Your task to perform on an android device: make emails show in primary in the gmail app Image 0: 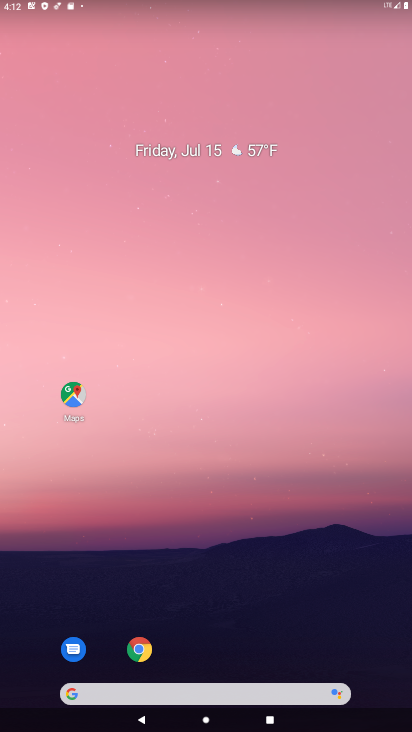
Step 0: drag from (227, 723) to (257, 66)
Your task to perform on an android device: make emails show in primary in the gmail app Image 1: 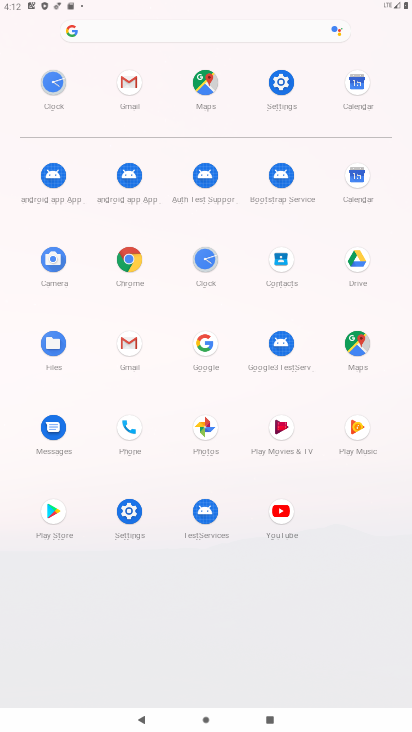
Step 1: click (126, 340)
Your task to perform on an android device: make emails show in primary in the gmail app Image 2: 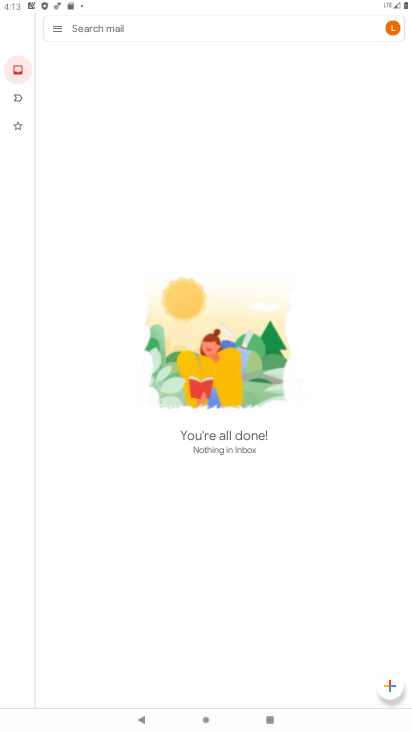
Step 2: click (12, 62)
Your task to perform on an android device: make emails show in primary in the gmail app Image 3: 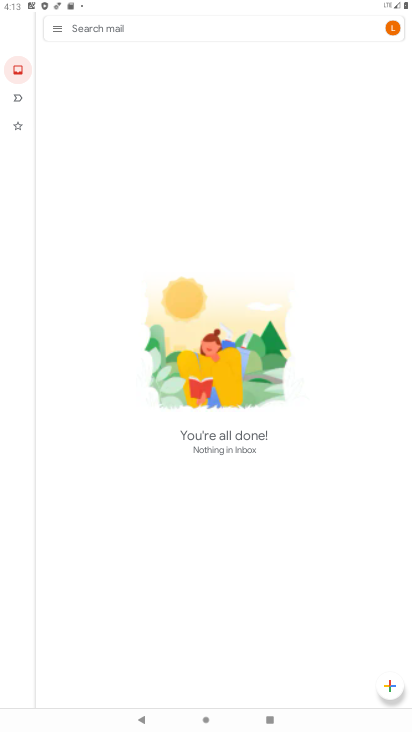
Step 3: click (51, 26)
Your task to perform on an android device: make emails show in primary in the gmail app Image 4: 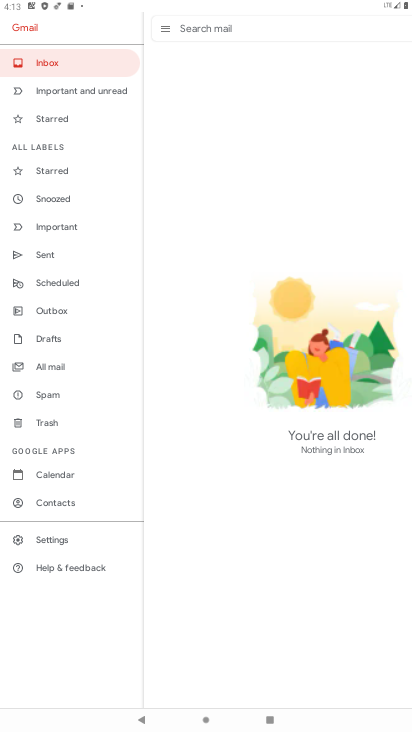
Step 4: click (43, 542)
Your task to perform on an android device: make emails show in primary in the gmail app Image 5: 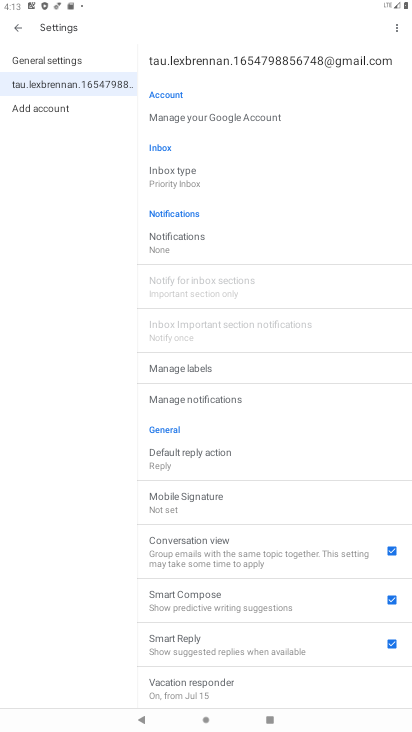
Step 5: click (179, 175)
Your task to perform on an android device: make emails show in primary in the gmail app Image 6: 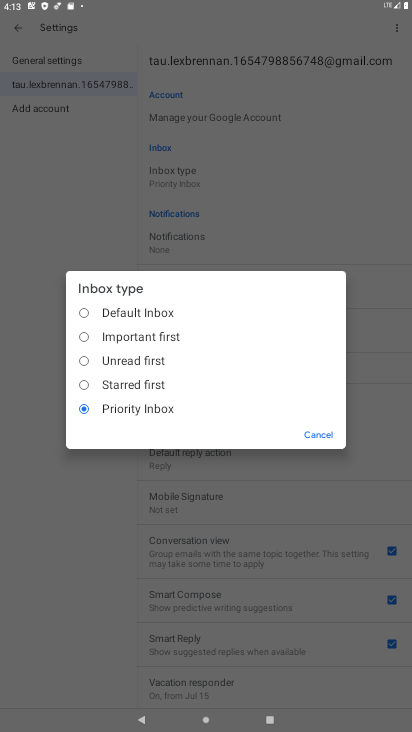
Step 6: click (76, 311)
Your task to perform on an android device: make emails show in primary in the gmail app Image 7: 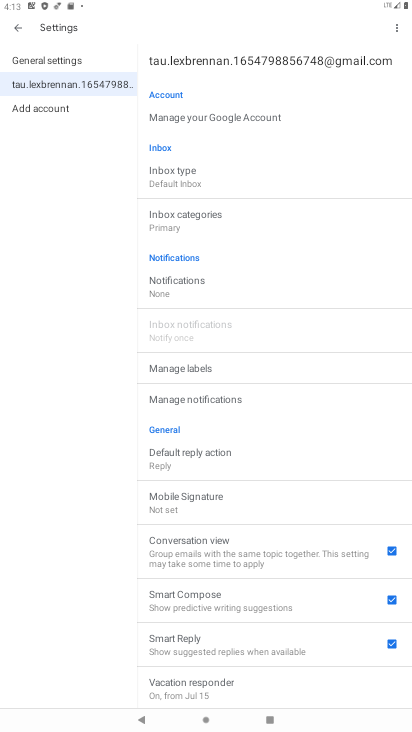
Step 7: task complete